Your task to perform on an android device: turn vacation reply on in the gmail app Image 0: 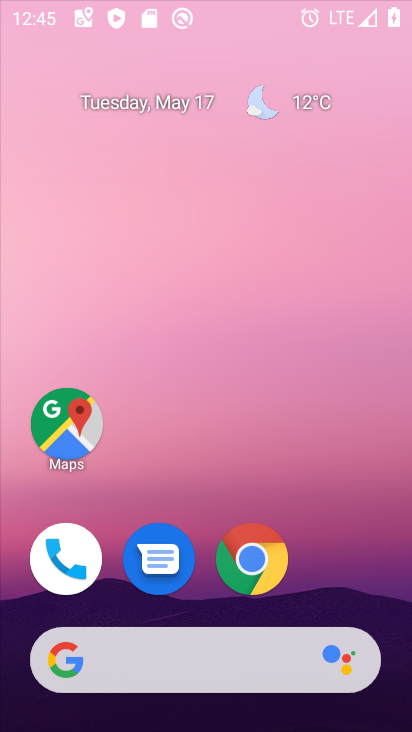
Step 0: click (257, 559)
Your task to perform on an android device: turn vacation reply on in the gmail app Image 1: 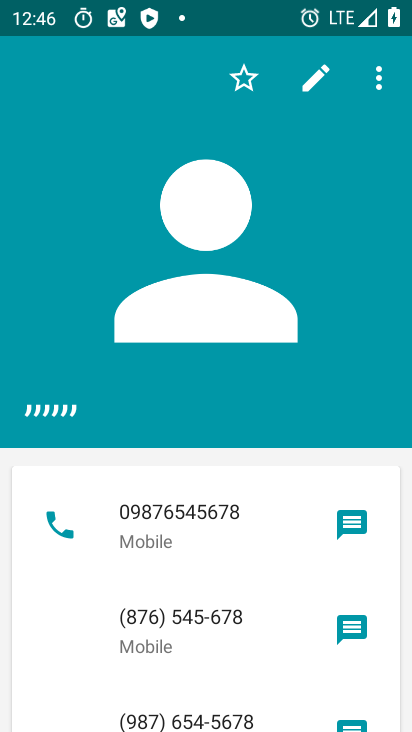
Step 1: press home button
Your task to perform on an android device: turn vacation reply on in the gmail app Image 2: 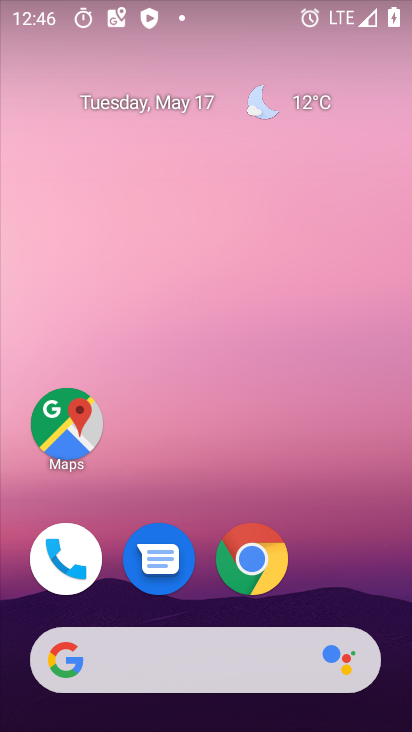
Step 2: drag from (334, 517) to (362, 102)
Your task to perform on an android device: turn vacation reply on in the gmail app Image 3: 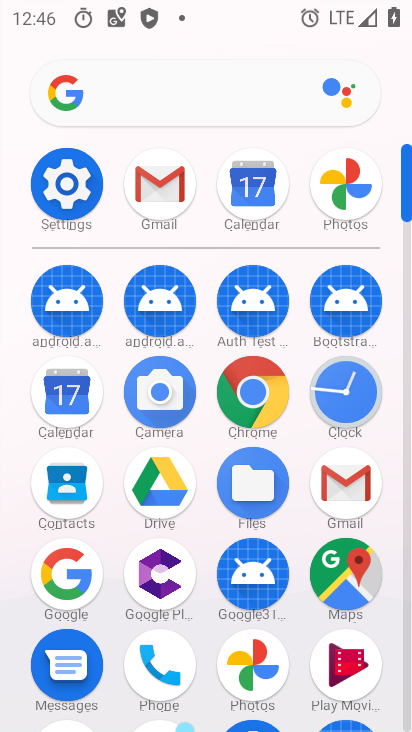
Step 3: click (174, 171)
Your task to perform on an android device: turn vacation reply on in the gmail app Image 4: 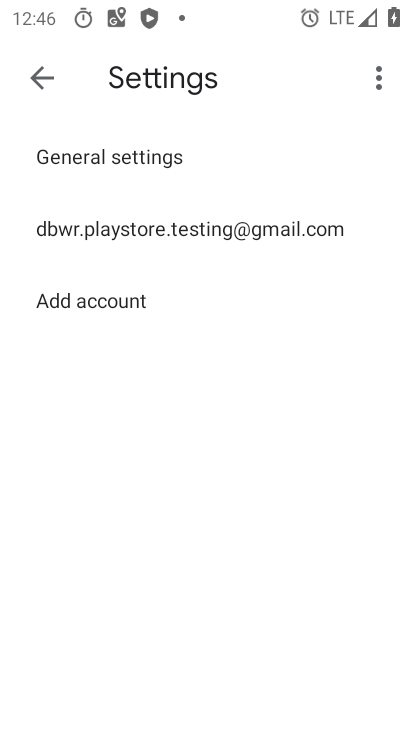
Step 4: click (92, 236)
Your task to perform on an android device: turn vacation reply on in the gmail app Image 5: 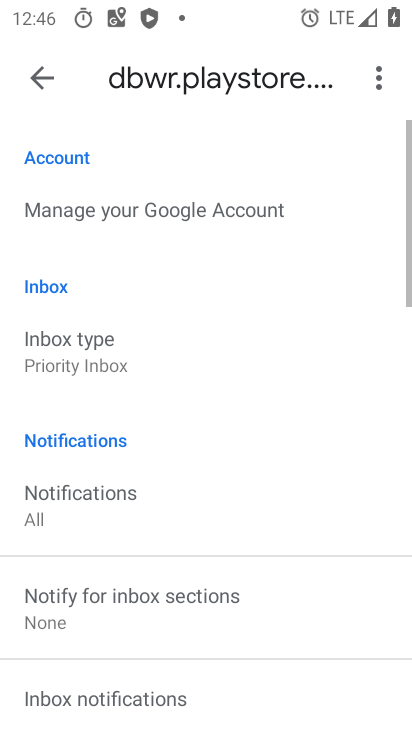
Step 5: drag from (199, 573) to (239, 127)
Your task to perform on an android device: turn vacation reply on in the gmail app Image 6: 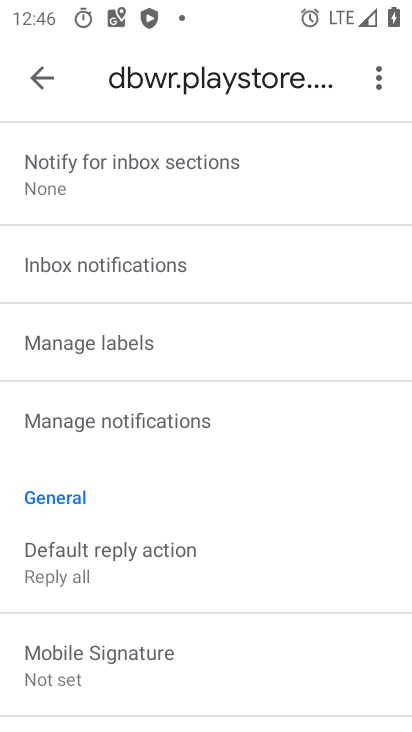
Step 6: drag from (164, 539) to (186, 463)
Your task to perform on an android device: turn vacation reply on in the gmail app Image 7: 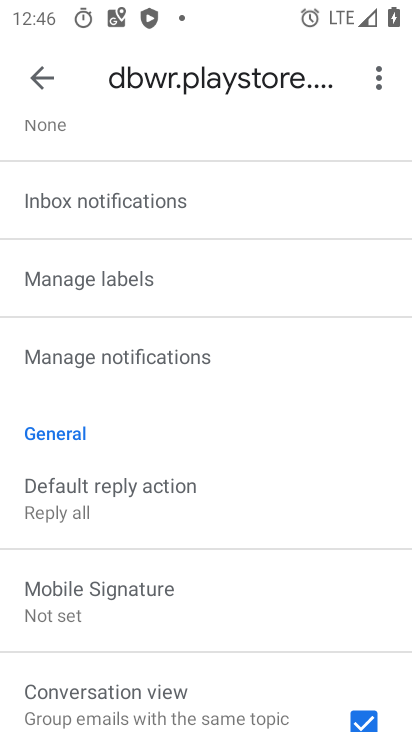
Step 7: drag from (203, 661) to (273, 372)
Your task to perform on an android device: turn vacation reply on in the gmail app Image 8: 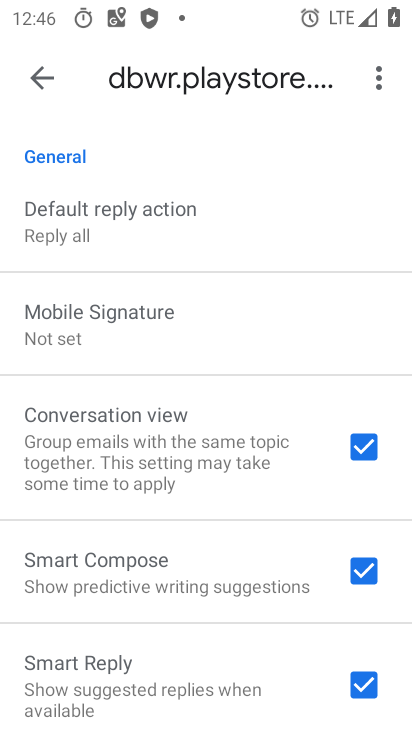
Step 8: drag from (189, 657) to (329, 291)
Your task to perform on an android device: turn vacation reply on in the gmail app Image 9: 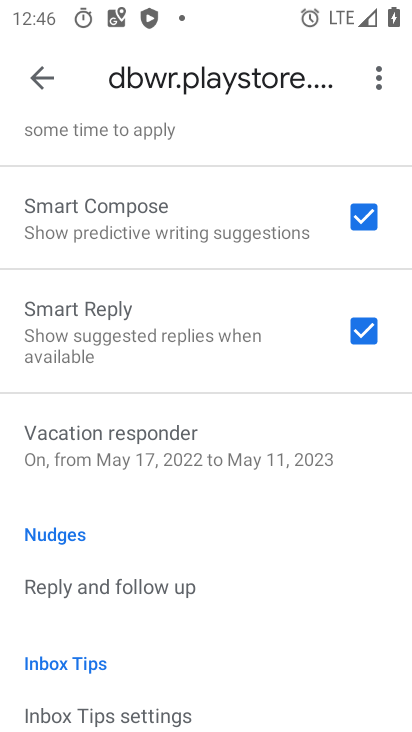
Step 9: click (180, 440)
Your task to perform on an android device: turn vacation reply on in the gmail app Image 10: 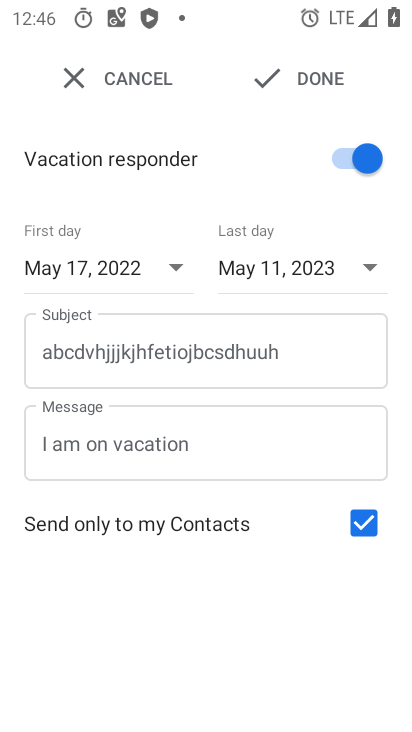
Step 10: task complete